Your task to perform on an android device: When is my next appointment? Image 0: 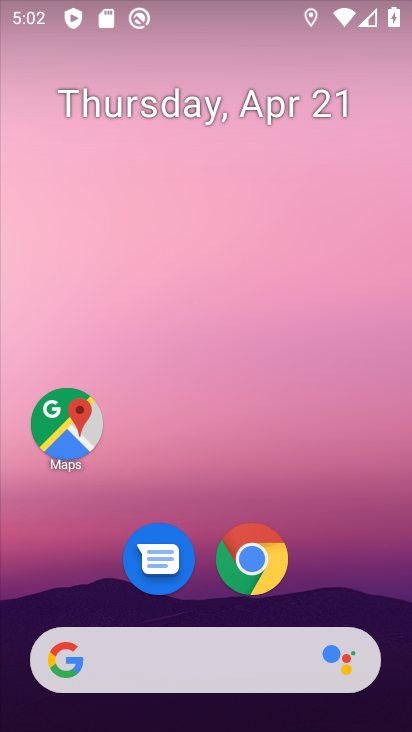
Step 0: drag from (327, 581) to (288, 117)
Your task to perform on an android device: When is my next appointment? Image 1: 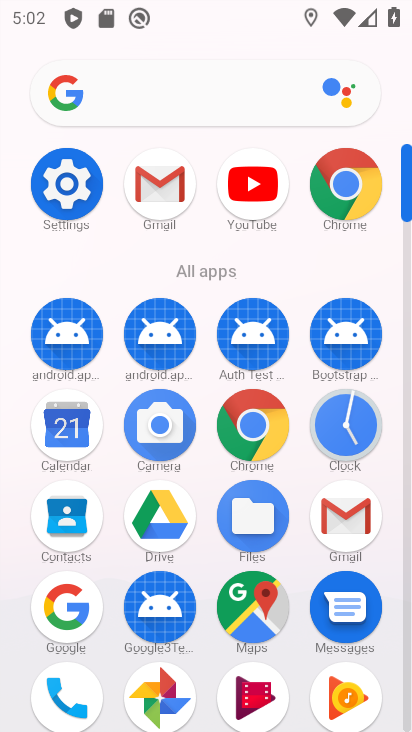
Step 1: click (69, 424)
Your task to perform on an android device: When is my next appointment? Image 2: 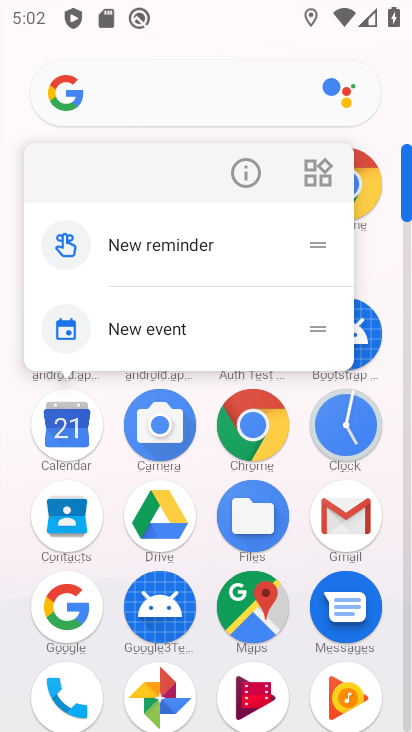
Step 2: click (76, 434)
Your task to perform on an android device: When is my next appointment? Image 3: 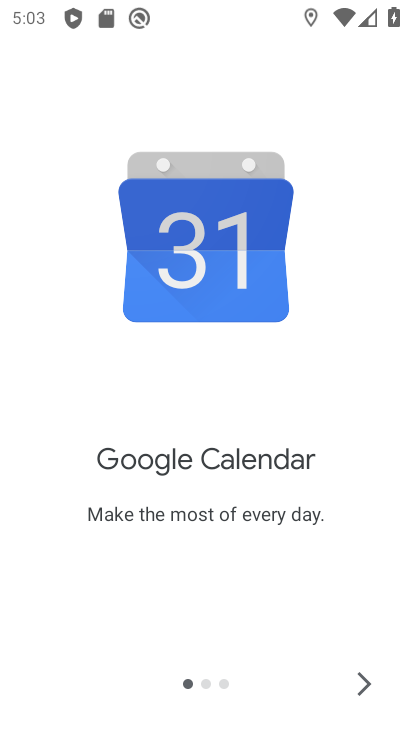
Step 3: click (369, 682)
Your task to perform on an android device: When is my next appointment? Image 4: 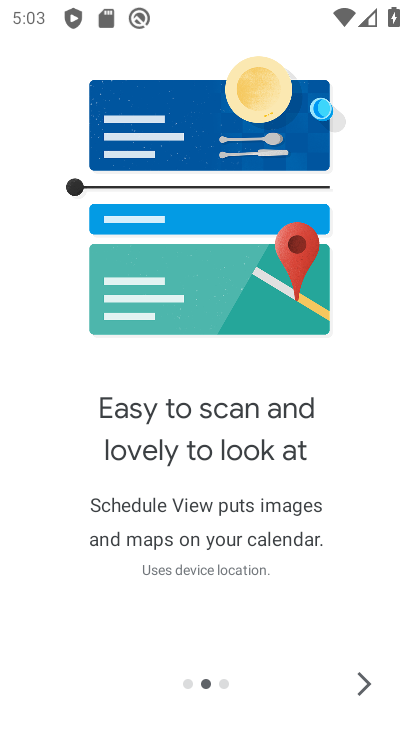
Step 4: click (359, 686)
Your task to perform on an android device: When is my next appointment? Image 5: 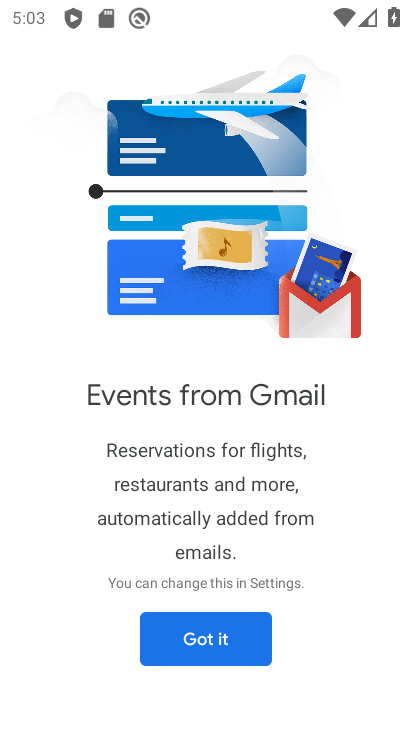
Step 5: click (237, 652)
Your task to perform on an android device: When is my next appointment? Image 6: 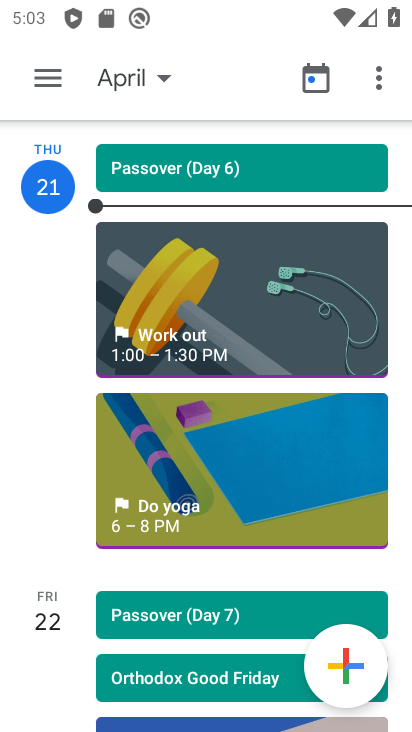
Step 6: click (140, 89)
Your task to perform on an android device: When is my next appointment? Image 7: 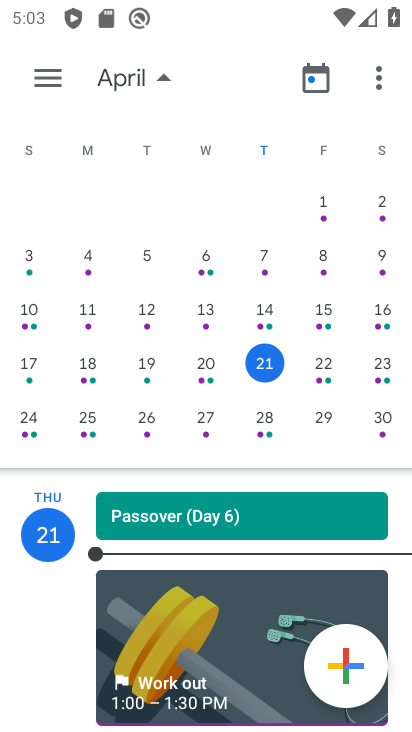
Step 7: click (323, 366)
Your task to perform on an android device: When is my next appointment? Image 8: 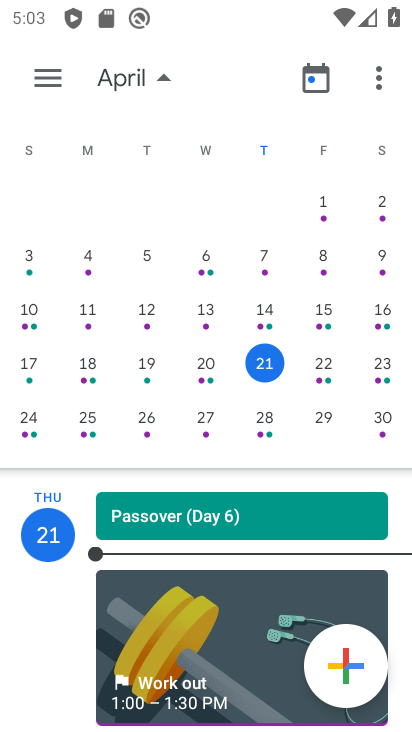
Step 8: click (336, 372)
Your task to perform on an android device: When is my next appointment? Image 9: 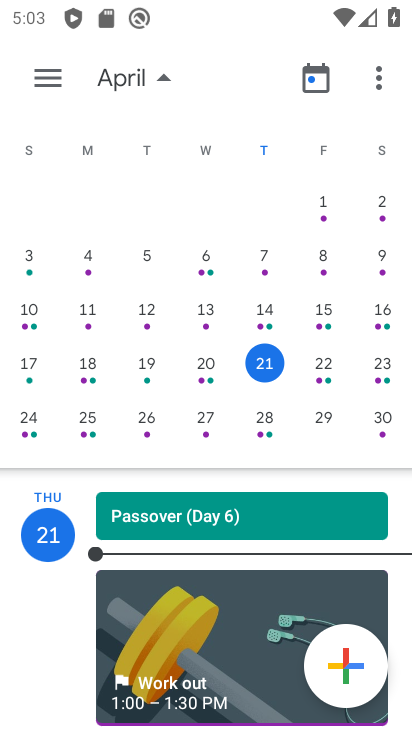
Step 9: task complete